Your task to perform on an android device: find which apps use the phone's location Image 0: 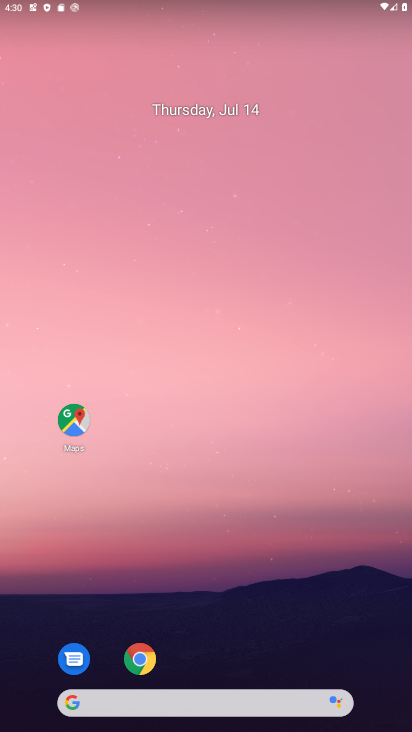
Step 0: press home button
Your task to perform on an android device: find which apps use the phone's location Image 1: 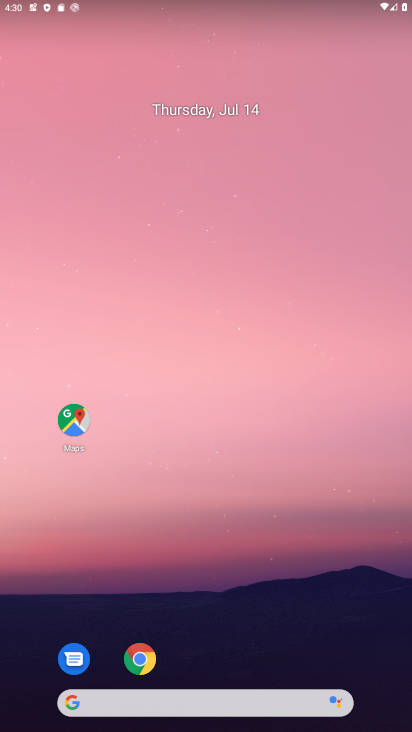
Step 1: drag from (237, 660) to (252, 75)
Your task to perform on an android device: find which apps use the phone's location Image 2: 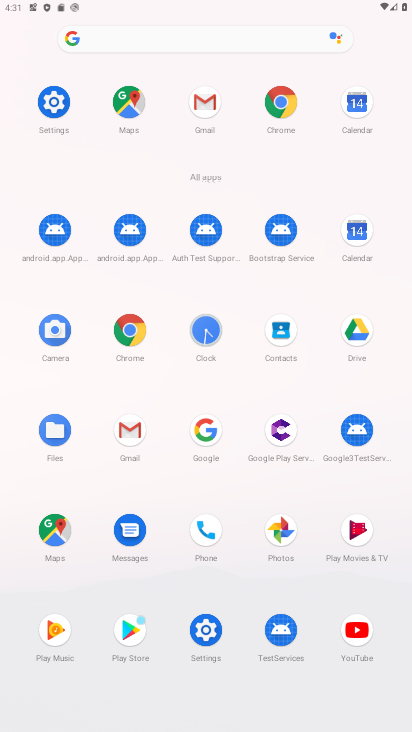
Step 2: click (199, 621)
Your task to perform on an android device: find which apps use the phone's location Image 3: 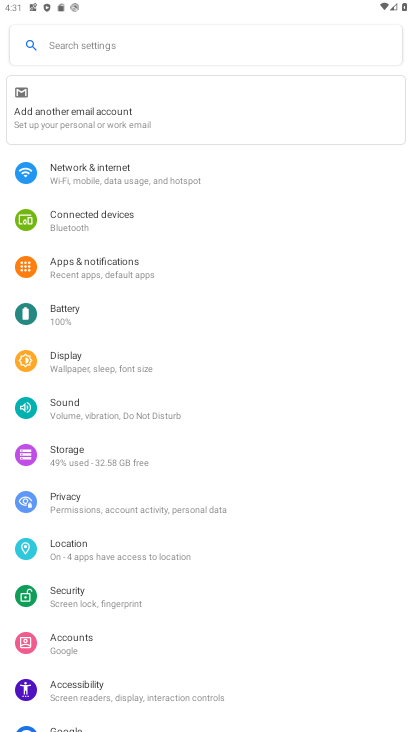
Step 3: click (97, 539)
Your task to perform on an android device: find which apps use the phone's location Image 4: 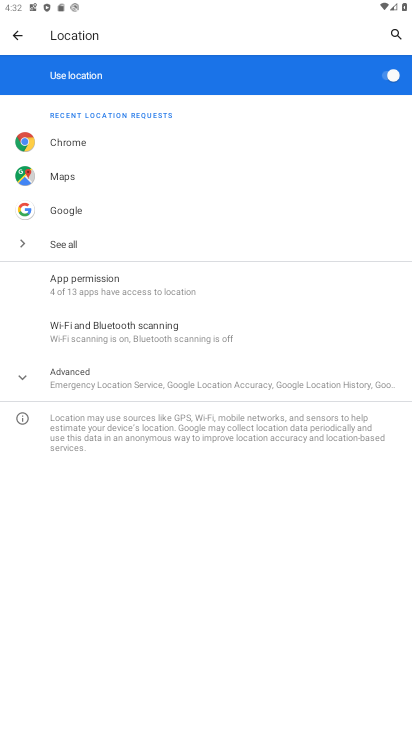
Step 4: click (20, 373)
Your task to perform on an android device: find which apps use the phone's location Image 5: 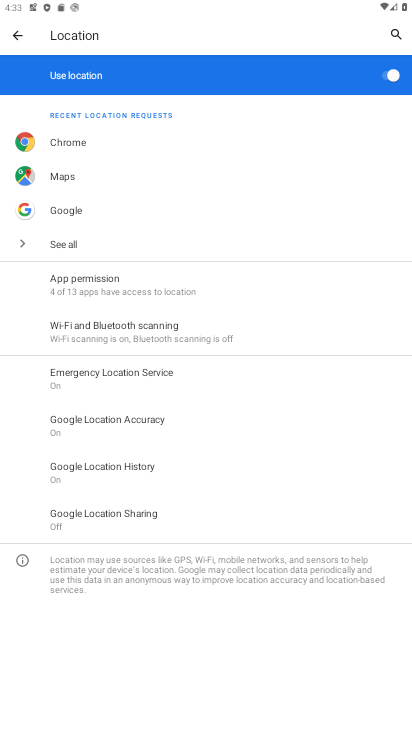
Step 5: click (96, 275)
Your task to perform on an android device: find which apps use the phone's location Image 6: 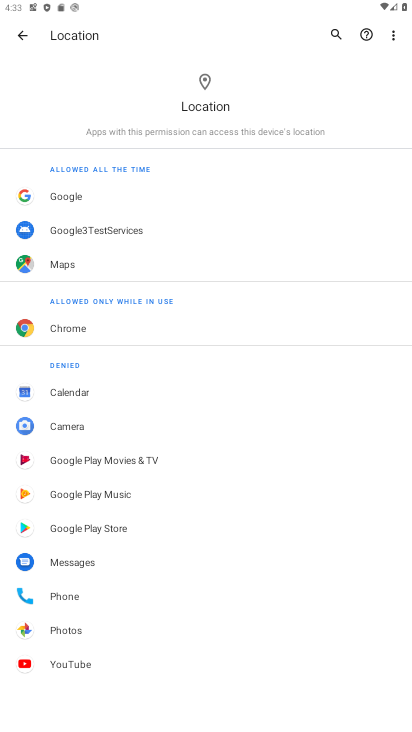
Step 6: task complete